Your task to perform on an android device: What's the weather going to be this weekend? Image 0: 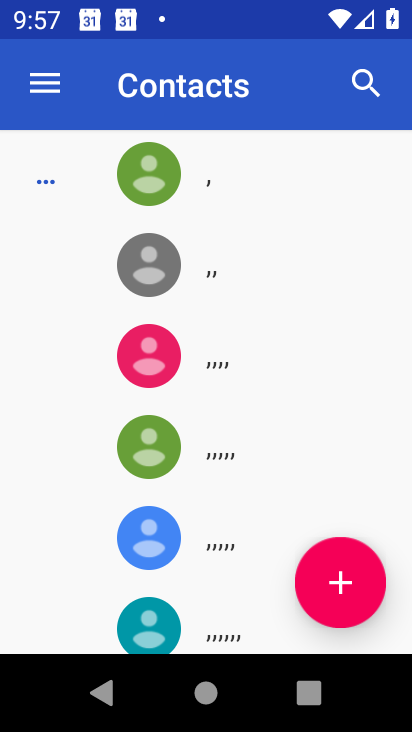
Step 0: press back button
Your task to perform on an android device: What's the weather going to be this weekend? Image 1: 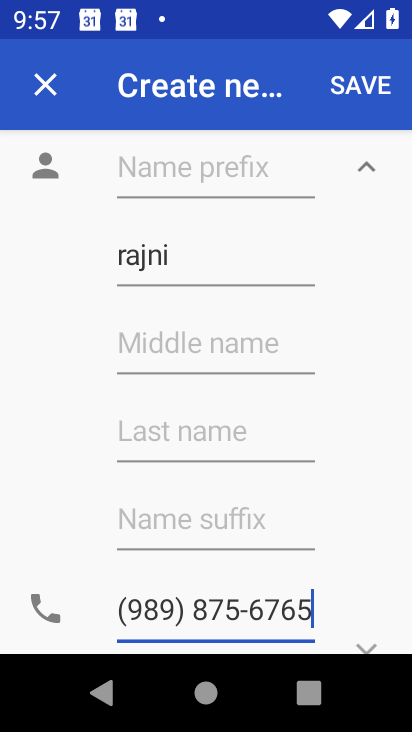
Step 1: press back button
Your task to perform on an android device: What's the weather going to be this weekend? Image 2: 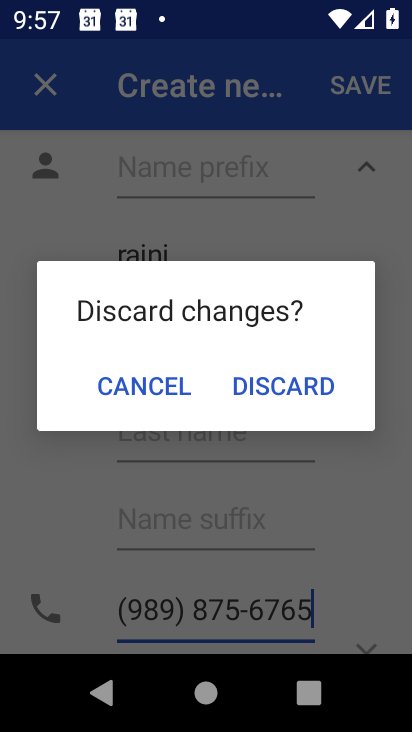
Step 2: click (272, 383)
Your task to perform on an android device: What's the weather going to be this weekend? Image 3: 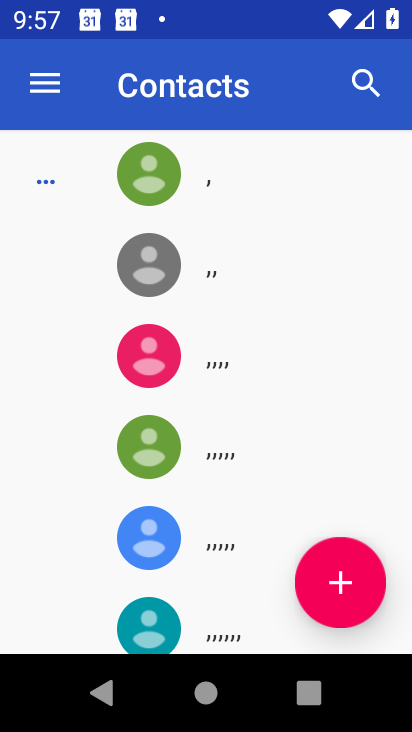
Step 3: press home button
Your task to perform on an android device: What's the weather going to be this weekend? Image 4: 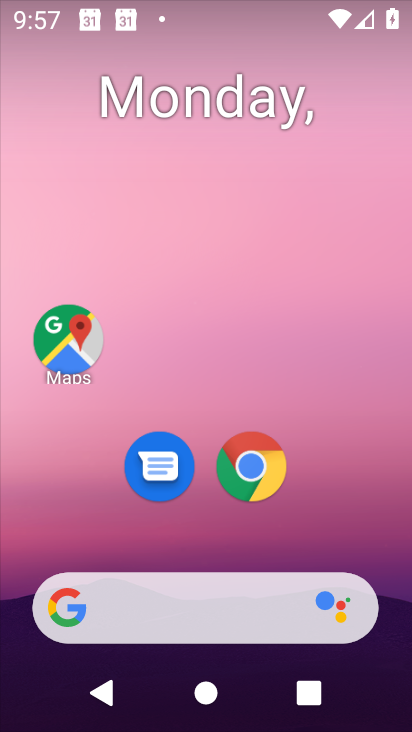
Step 4: drag from (21, 171) to (408, 268)
Your task to perform on an android device: What's the weather going to be this weekend? Image 5: 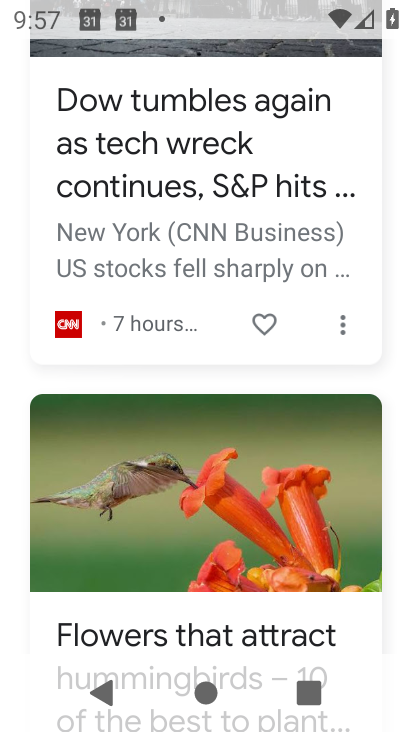
Step 5: drag from (124, 163) to (304, 499)
Your task to perform on an android device: What's the weather going to be this weekend? Image 6: 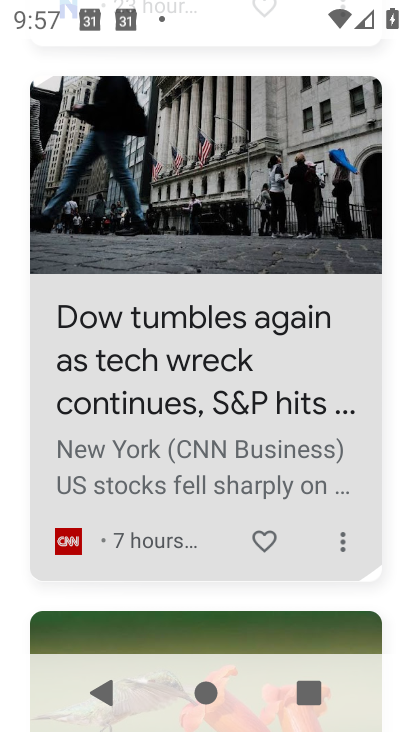
Step 6: drag from (255, 136) to (202, 530)
Your task to perform on an android device: What's the weather going to be this weekend? Image 7: 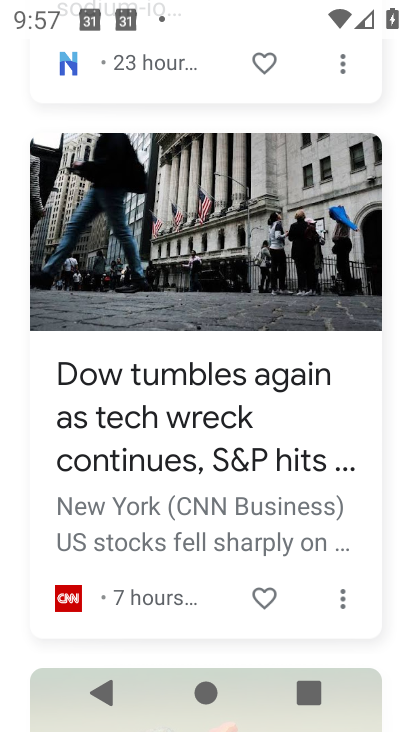
Step 7: drag from (193, 110) to (235, 547)
Your task to perform on an android device: What's the weather going to be this weekend? Image 8: 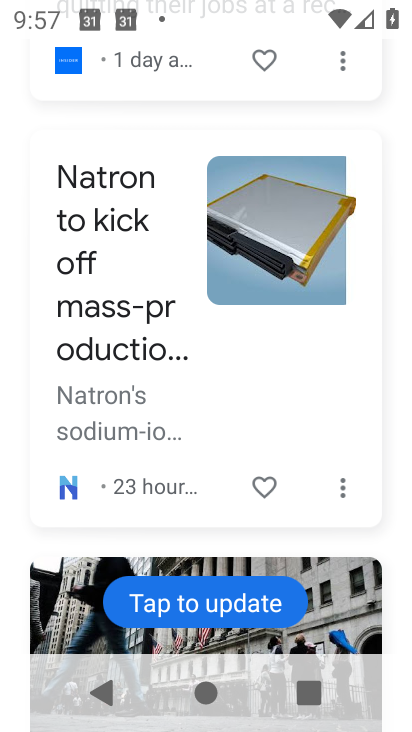
Step 8: drag from (215, 274) to (215, 612)
Your task to perform on an android device: What's the weather going to be this weekend? Image 9: 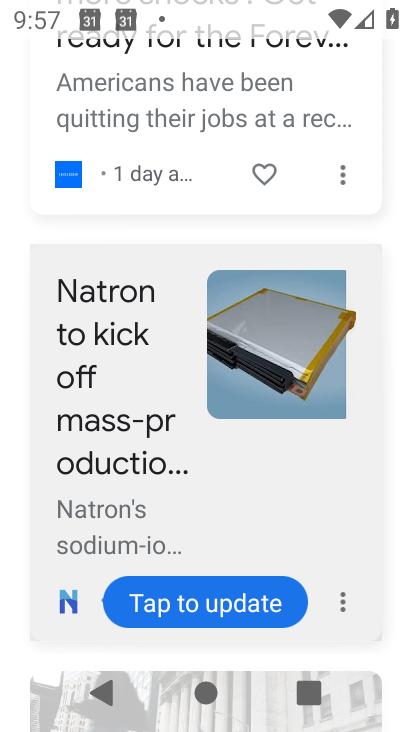
Step 9: drag from (178, 163) to (178, 637)
Your task to perform on an android device: What's the weather going to be this weekend? Image 10: 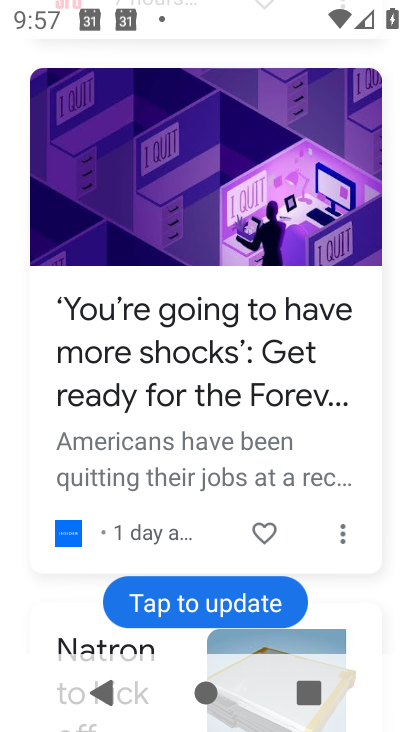
Step 10: drag from (168, 138) to (99, 706)
Your task to perform on an android device: What's the weather going to be this weekend? Image 11: 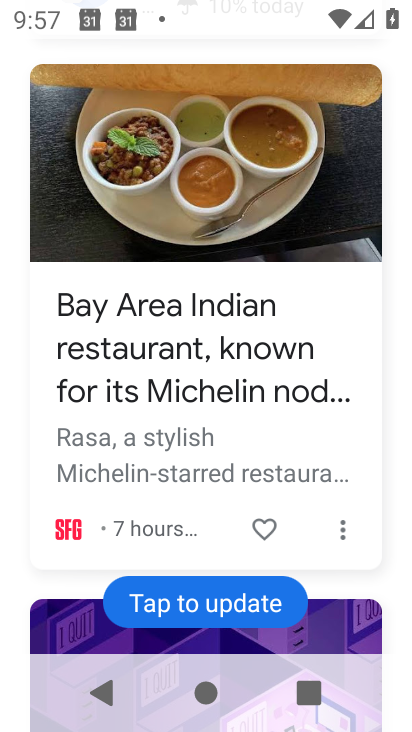
Step 11: drag from (137, 159) to (153, 625)
Your task to perform on an android device: What's the weather going to be this weekend? Image 12: 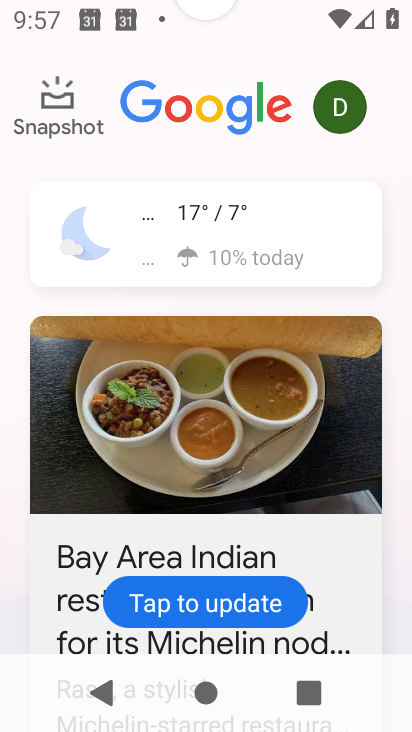
Step 12: drag from (167, 199) to (206, 258)
Your task to perform on an android device: What's the weather going to be this weekend? Image 13: 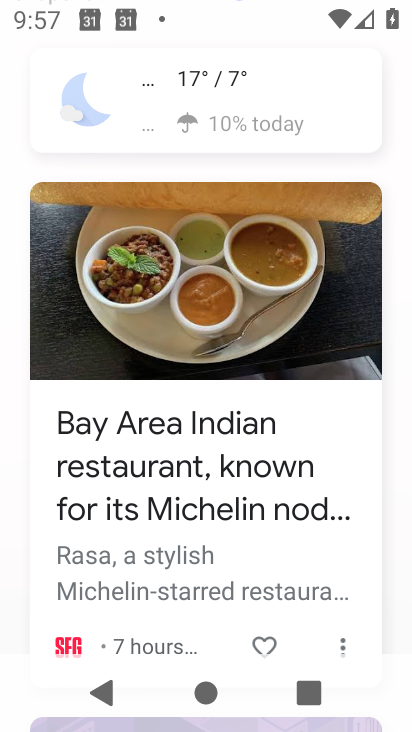
Step 13: click (207, 192)
Your task to perform on an android device: What's the weather going to be this weekend? Image 14: 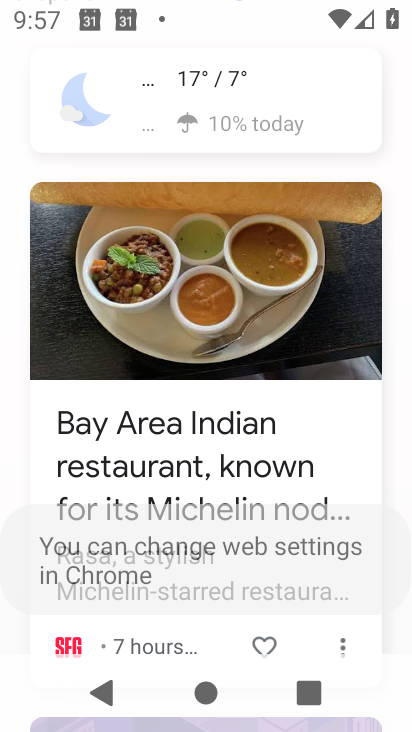
Step 14: click (216, 101)
Your task to perform on an android device: What's the weather going to be this weekend? Image 15: 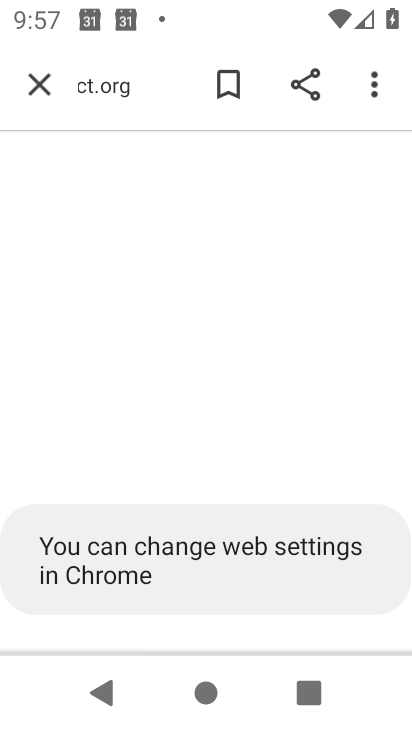
Step 15: click (222, 104)
Your task to perform on an android device: What's the weather going to be this weekend? Image 16: 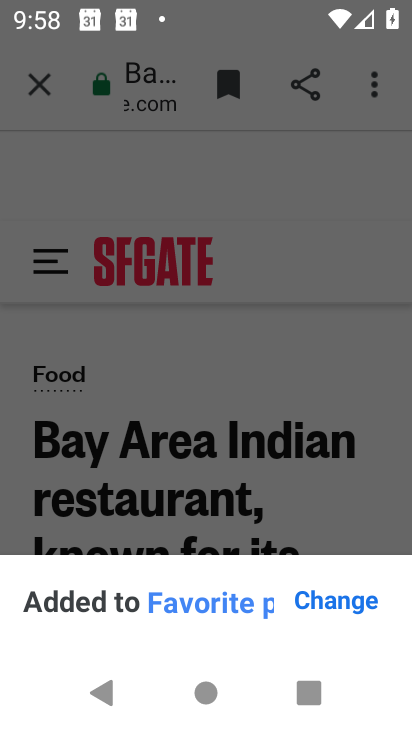
Step 16: click (258, 211)
Your task to perform on an android device: What's the weather going to be this weekend? Image 17: 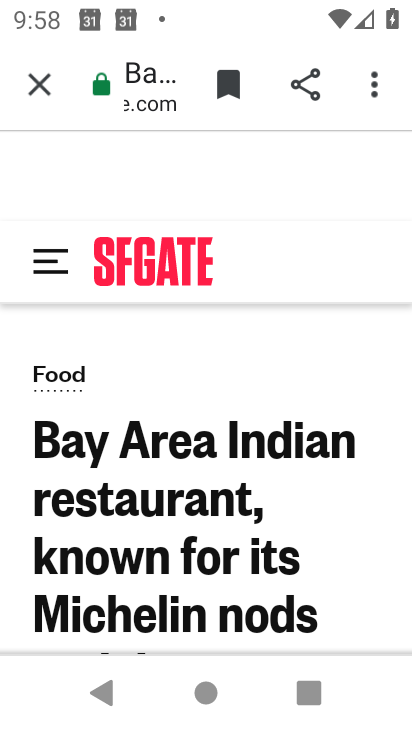
Step 17: click (28, 88)
Your task to perform on an android device: What's the weather going to be this weekend? Image 18: 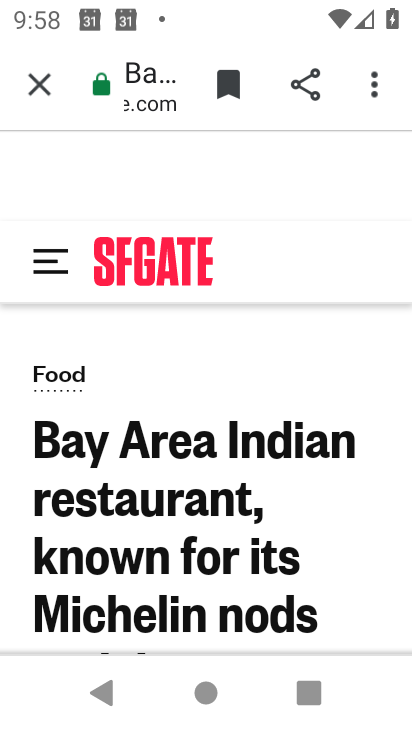
Step 18: click (31, 80)
Your task to perform on an android device: What's the weather going to be this weekend? Image 19: 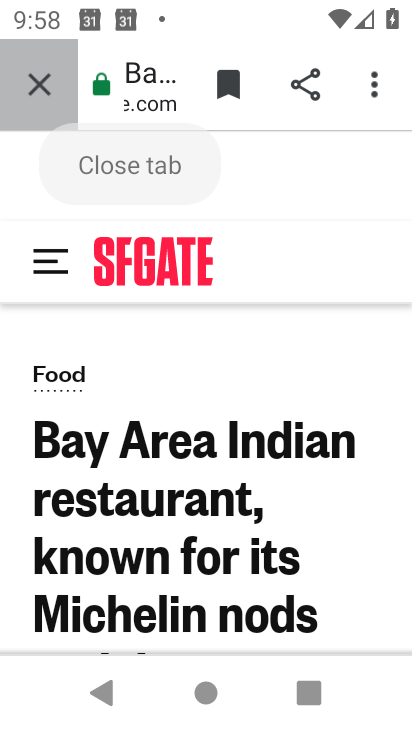
Step 19: click (34, 84)
Your task to perform on an android device: What's the weather going to be this weekend? Image 20: 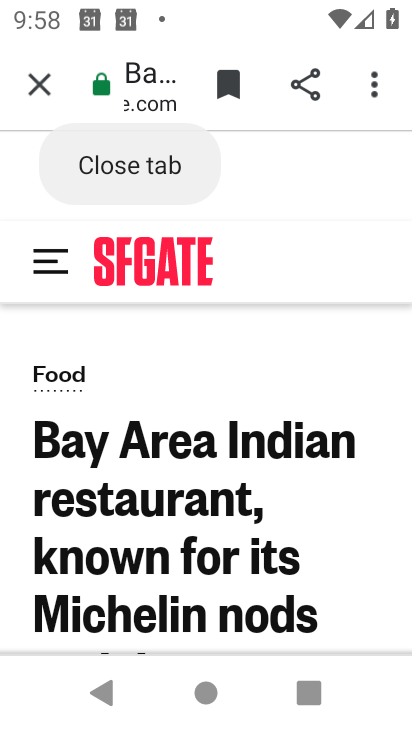
Step 20: click (36, 85)
Your task to perform on an android device: What's the weather going to be this weekend? Image 21: 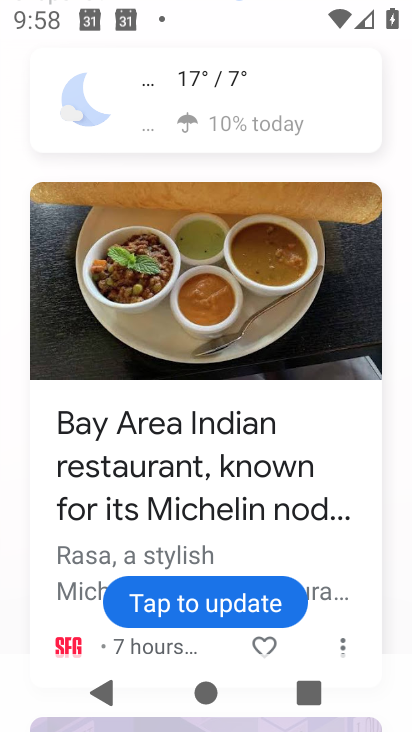
Step 21: click (203, 103)
Your task to perform on an android device: What's the weather going to be this weekend? Image 22: 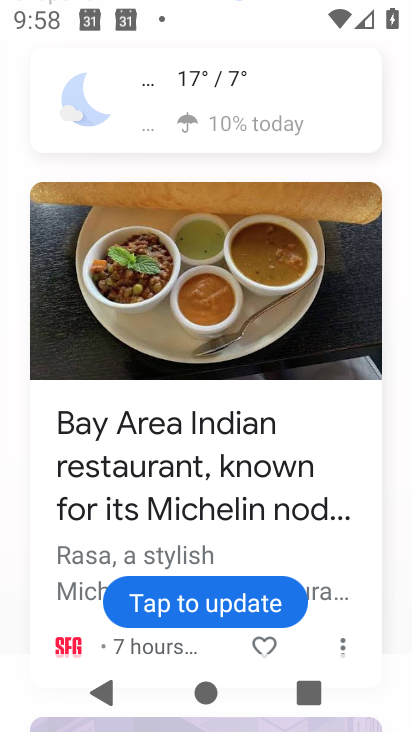
Step 22: click (205, 103)
Your task to perform on an android device: What's the weather going to be this weekend? Image 23: 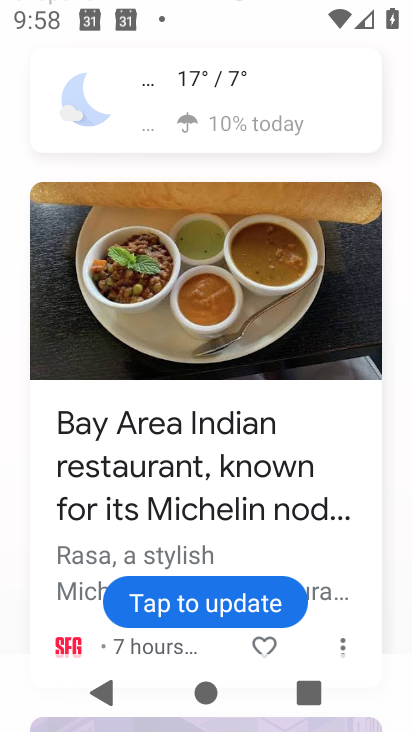
Step 23: click (205, 103)
Your task to perform on an android device: What's the weather going to be this weekend? Image 24: 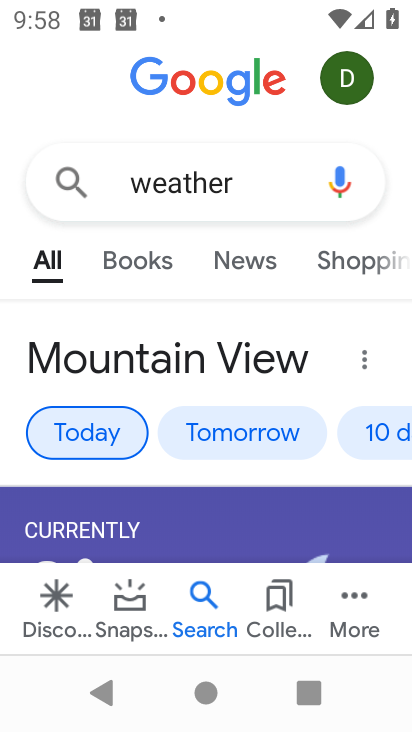
Step 24: click (241, 431)
Your task to perform on an android device: What's the weather going to be this weekend? Image 25: 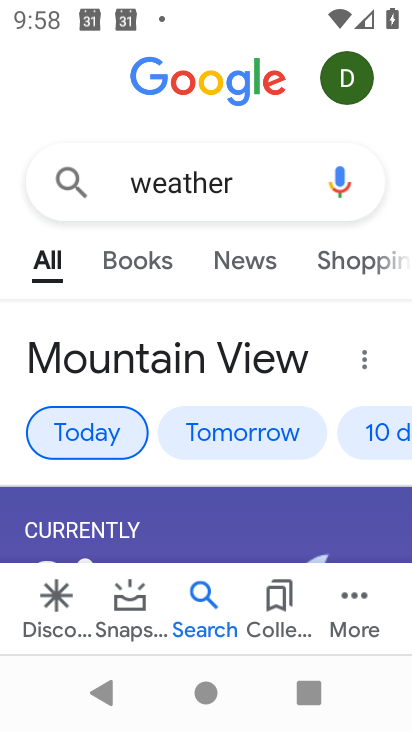
Step 25: click (242, 431)
Your task to perform on an android device: What's the weather going to be this weekend? Image 26: 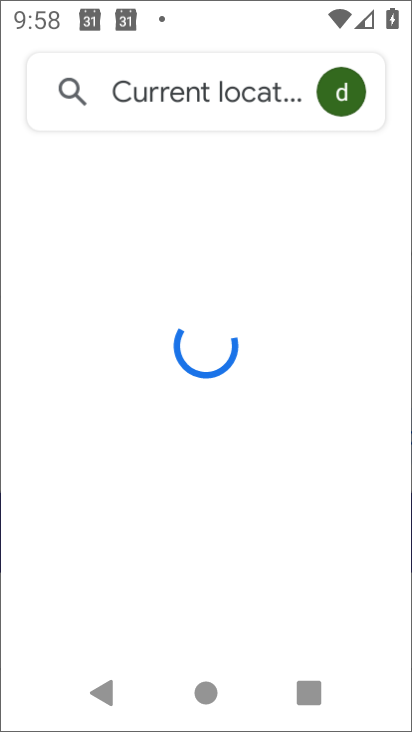
Step 26: click (243, 432)
Your task to perform on an android device: What's the weather going to be this weekend? Image 27: 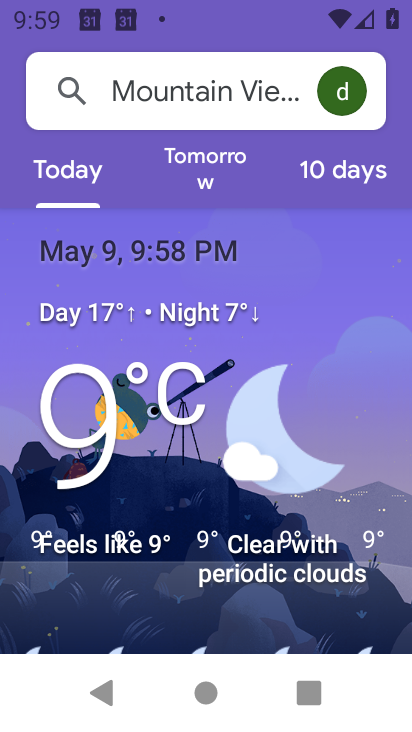
Step 27: press back button
Your task to perform on an android device: What's the weather going to be this weekend? Image 28: 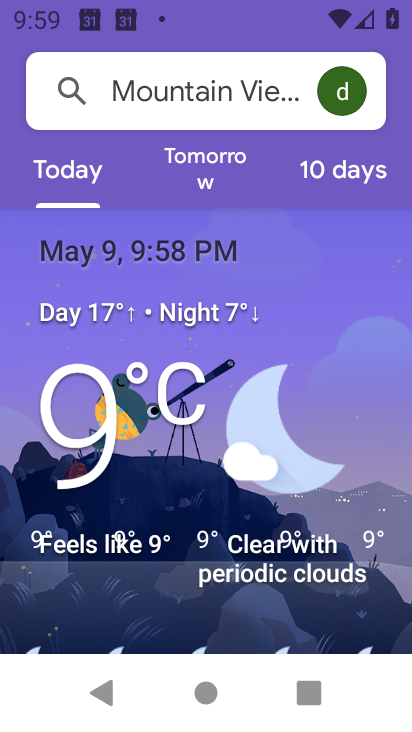
Step 28: press back button
Your task to perform on an android device: What's the weather going to be this weekend? Image 29: 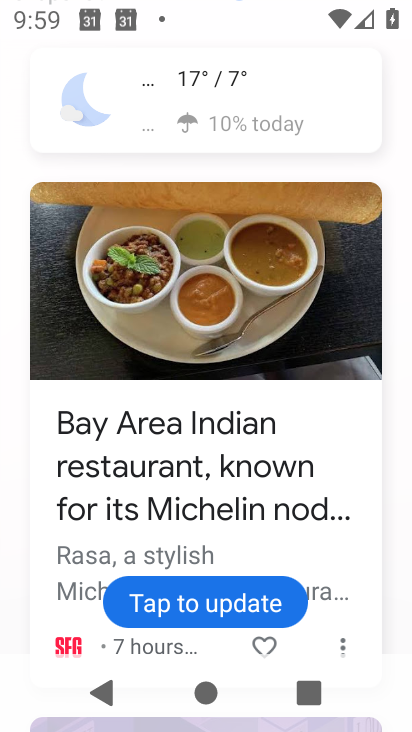
Step 29: click (171, 111)
Your task to perform on an android device: What's the weather going to be this weekend? Image 30: 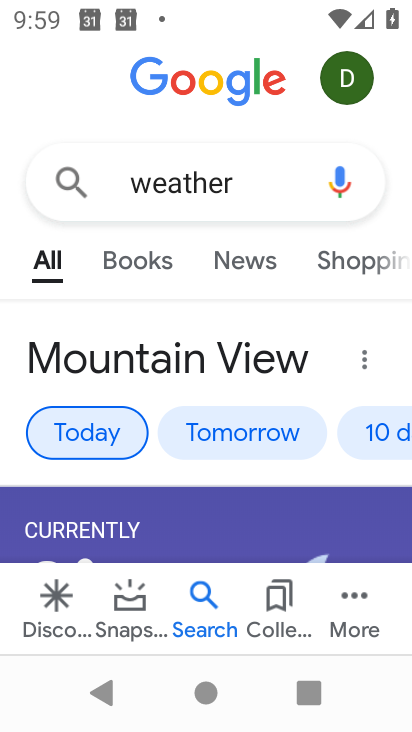
Step 30: task complete